Your task to perform on an android device: turn off notifications in google photos Image 0: 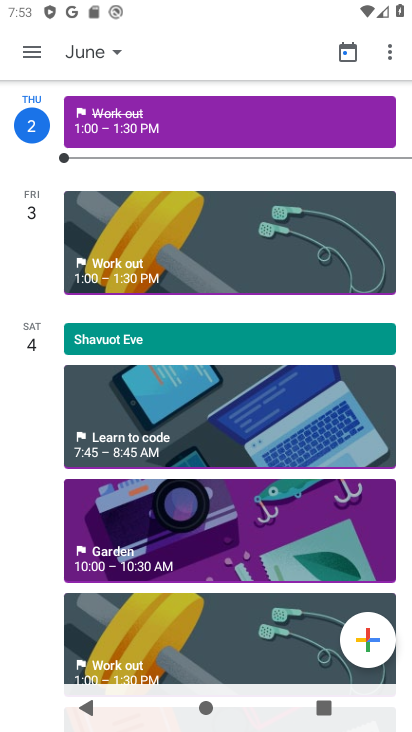
Step 0: press home button
Your task to perform on an android device: turn off notifications in google photos Image 1: 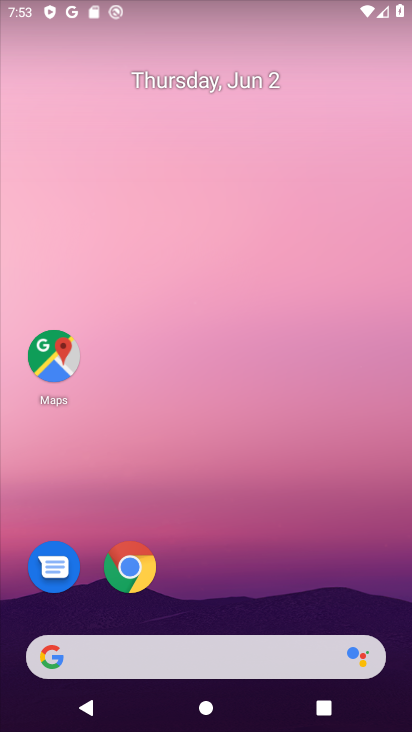
Step 1: drag from (267, 491) to (198, 103)
Your task to perform on an android device: turn off notifications in google photos Image 2: 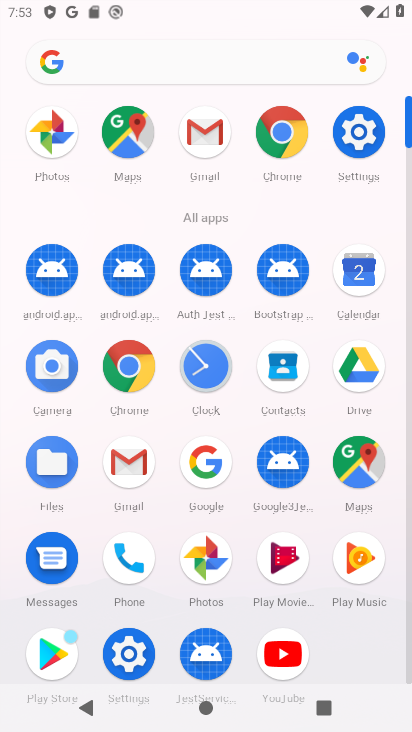
Step 2: click (201, 557)
Your task to perform on an android device: turn off notifications in google photos Image 3: 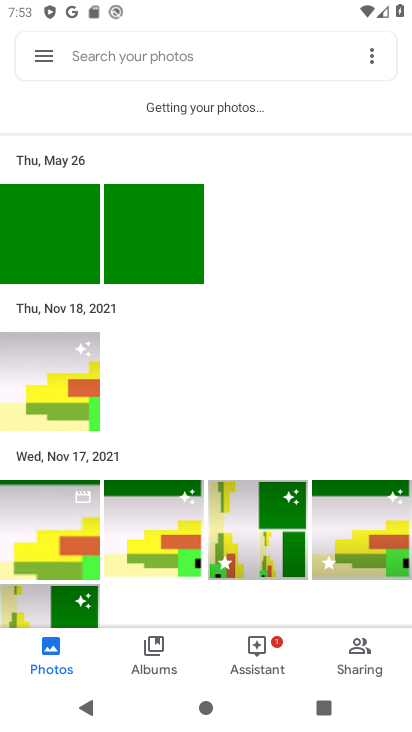
Step 3: click (29, 47)
Your task to perform on an android device: turn off notifications in google photos Image 4: 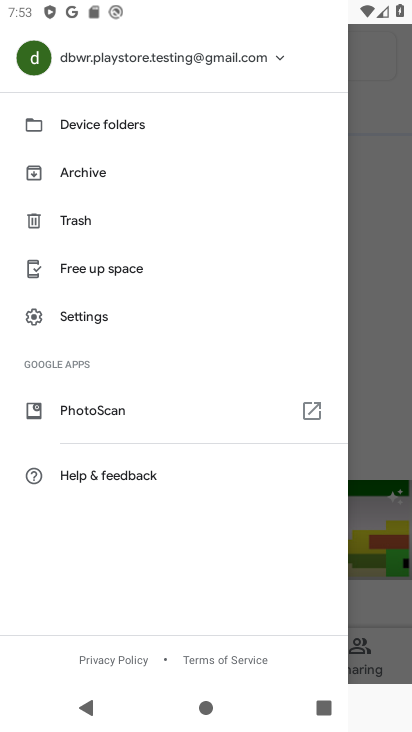
Step 4: click (98, 321)
Your task to perform on an android device: turn off notifications in google photos Image 5: 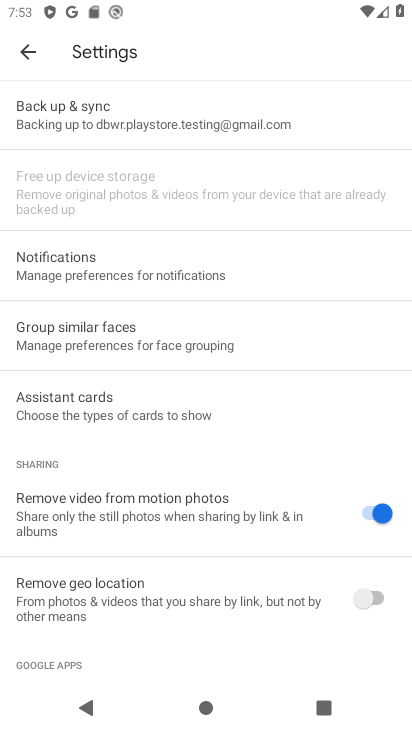
Step 5: click (90, 270)
Your task to perform on an android device: turn off notifications in google photos Image 6: 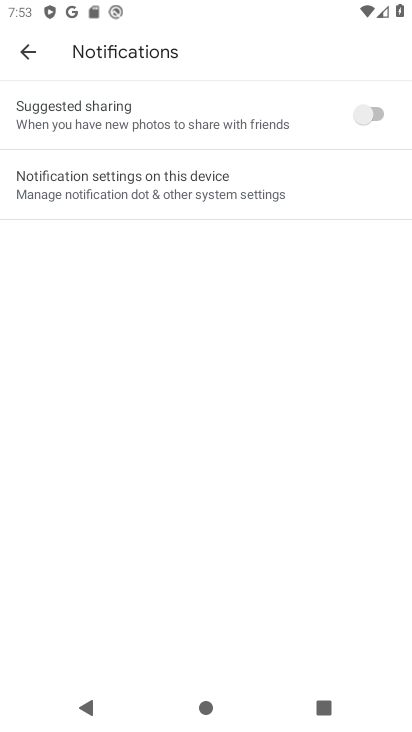
Step 6: click (113, 196)
Your task to perform on an android device: turn off notifications in google photos Image 7: 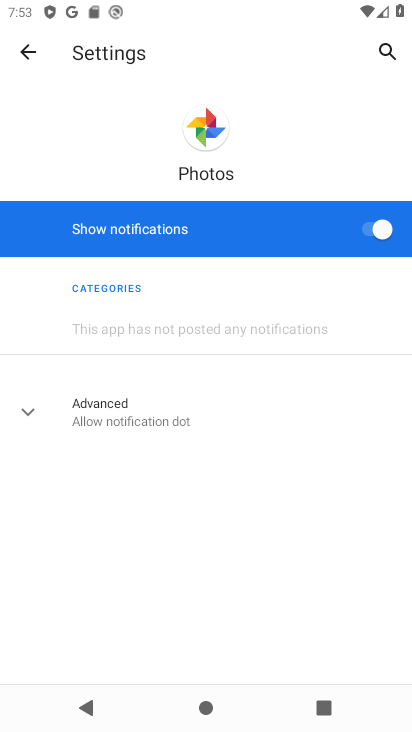
Step 7: click (373, 240)
Your task to perform on an android device: turn off notifications in google photos Image 8: 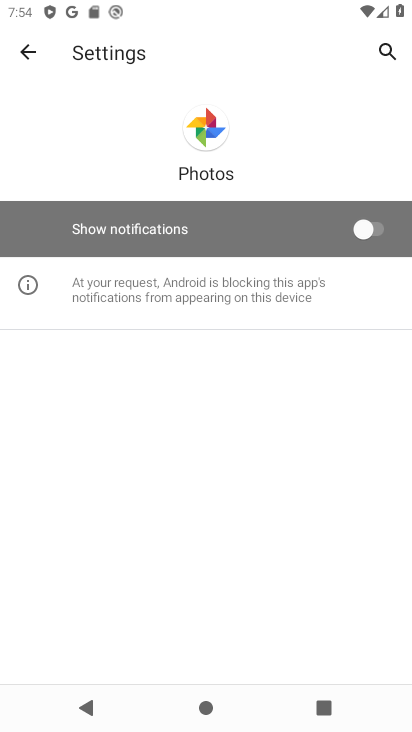
Step 8: task complete